Your task to perform on an android device: Show me productivity apps on the Play Store Image 0: 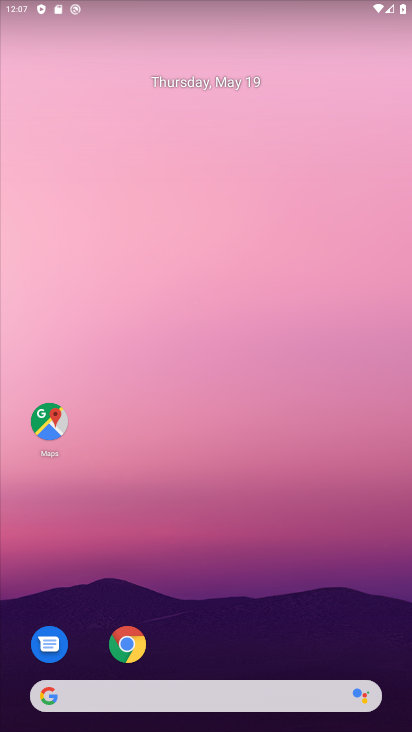
Step 0: drag from (350, 564) to (318, 212)
Your task to perform on an android device: Show me productivity apps on the Play Store Image 1: 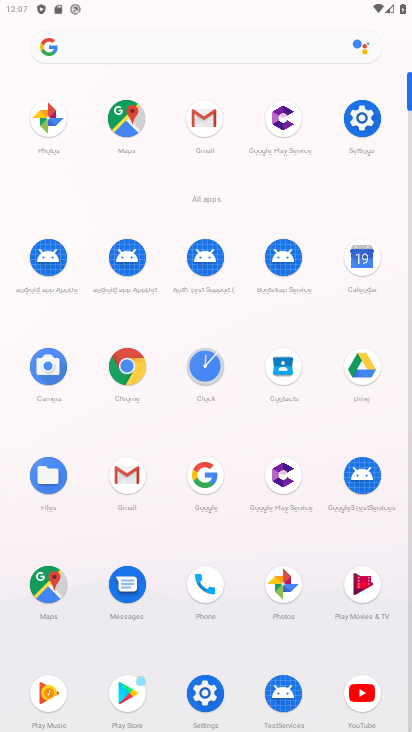
Step 1: click (146, 683)
Your task to perform on an android device: Show me productivity apps on the Play Store Image 2: 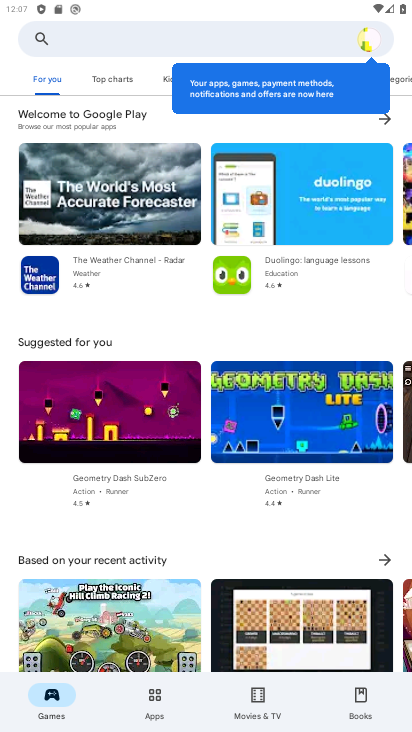
Step 2: click (159, 694)
Your task to perform on an android device: Show me productivity apps on the Play Store Image 3: 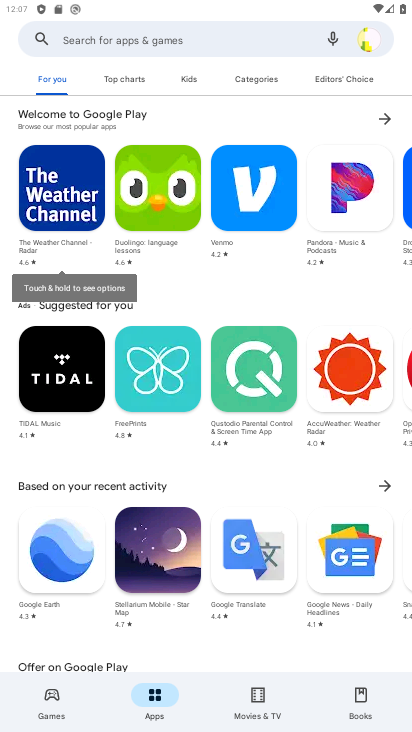
Step 3: click (276, 82)
Your task to perform on an android device: Show me productivity apps on the Play Store Image 4: 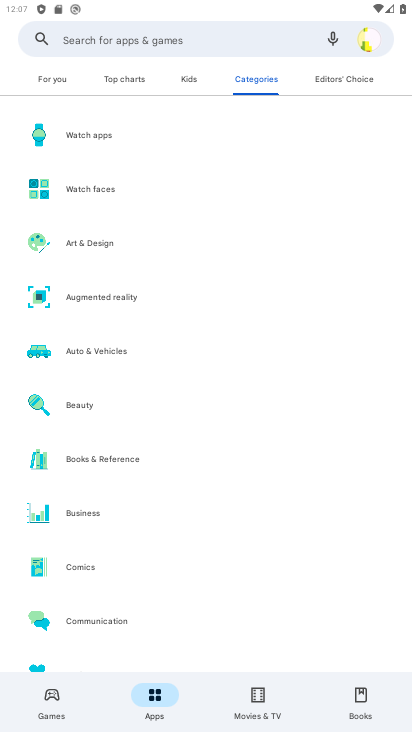
Step 4: drag from (176, 576) to (216, 247)
Your task to perform on an android device: Show me productivity apps on the Play Store Image 5: 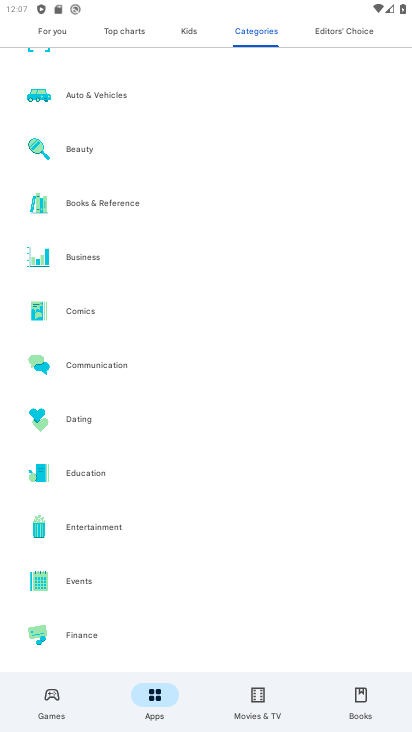
Step 5: drag from (136, 542) to (205, 219)
Your task to perform on an android device: Show me productivity apps on the Play Store Image 6: 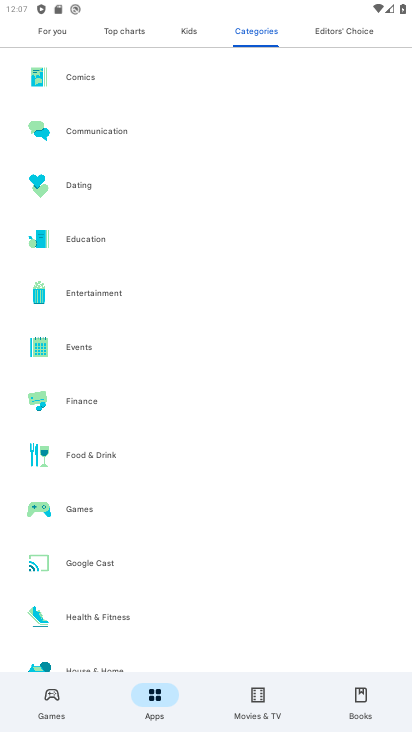
Step 6: drag from (131, 556) to (175, 235)
Your task to perform on an android device: Show me productivity apps on the Play Store Image 7: 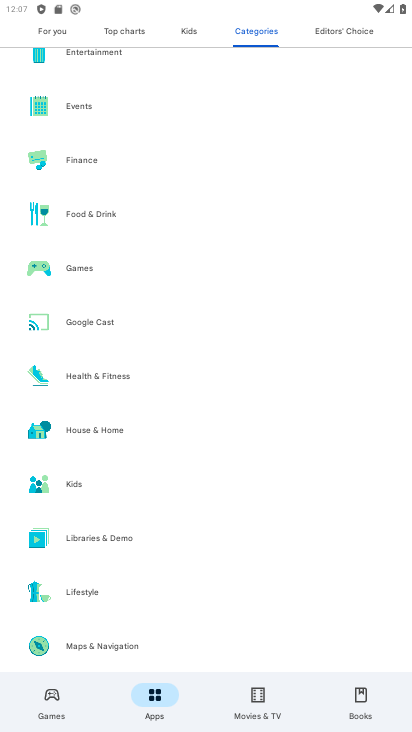
Step 7: drag from (112, 581) to (139, 271)
Your task to perform on an android device: Show me productivity apps on the Play Store Image 8: 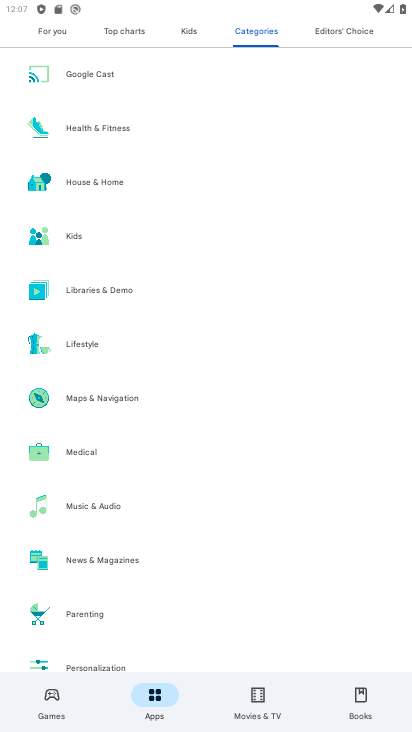
Step 8: drag from (108, 613) to (152, 286)
Your task to perform on an android device: Show me productivity apps on the Play Store Image 9: 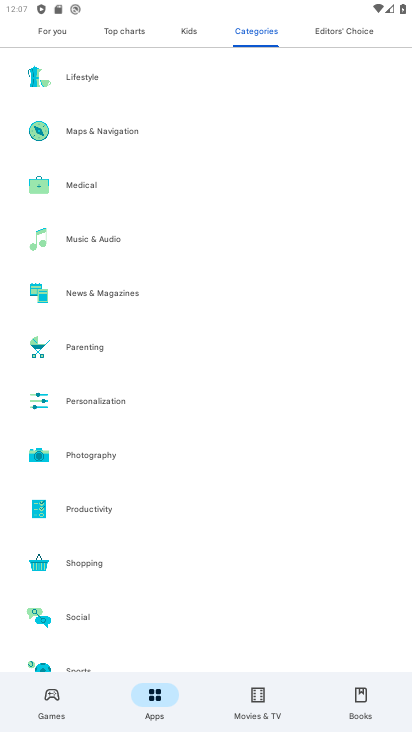
Step 9: click (95, 508)
Your task to perform on an android device: Show me productivity apps on the Play Store Image 10: 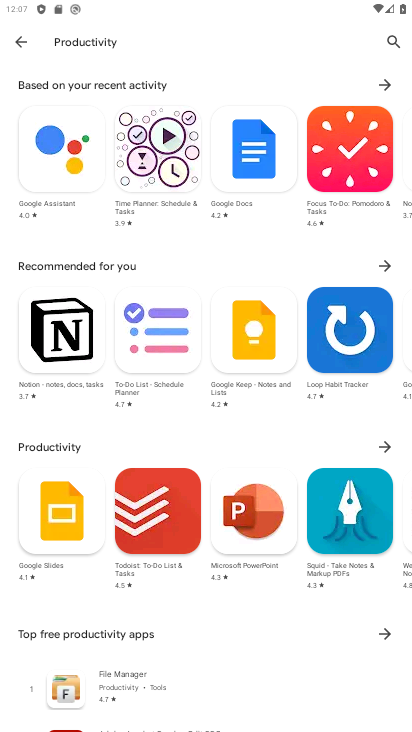
Step 10: task complete